Your task to perform on an android device: Add "bose quietcomfort 35" to the cart on target.com, then select checkout. Image 0: 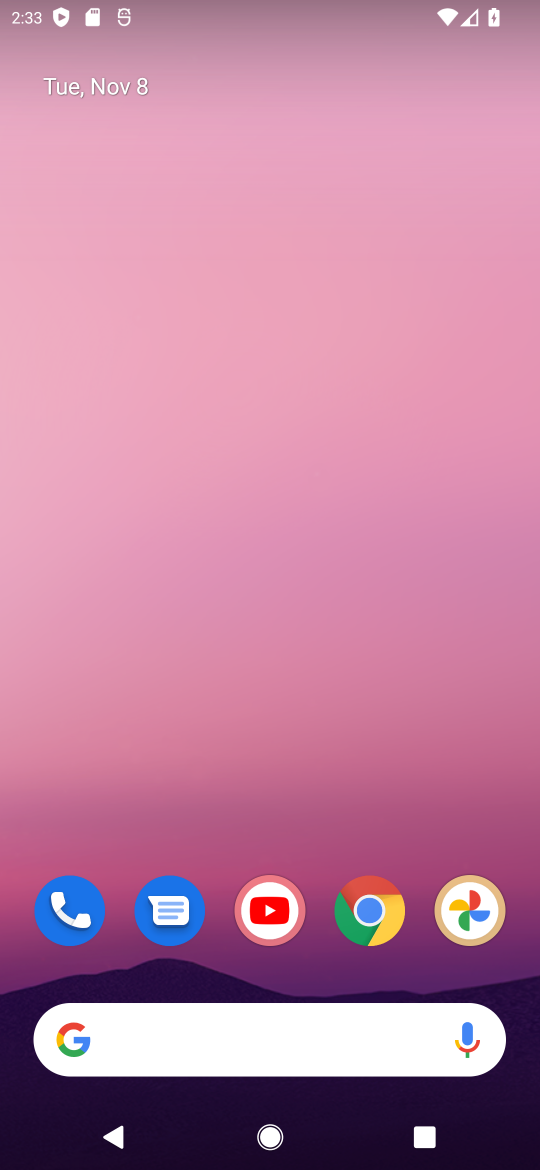
Step 0: drag from (330, 997) to (424, 103)
Your task to perform on an android device: Add "bose quietcomfort 35" to the cart on target.com, then select checkout. Image 1: 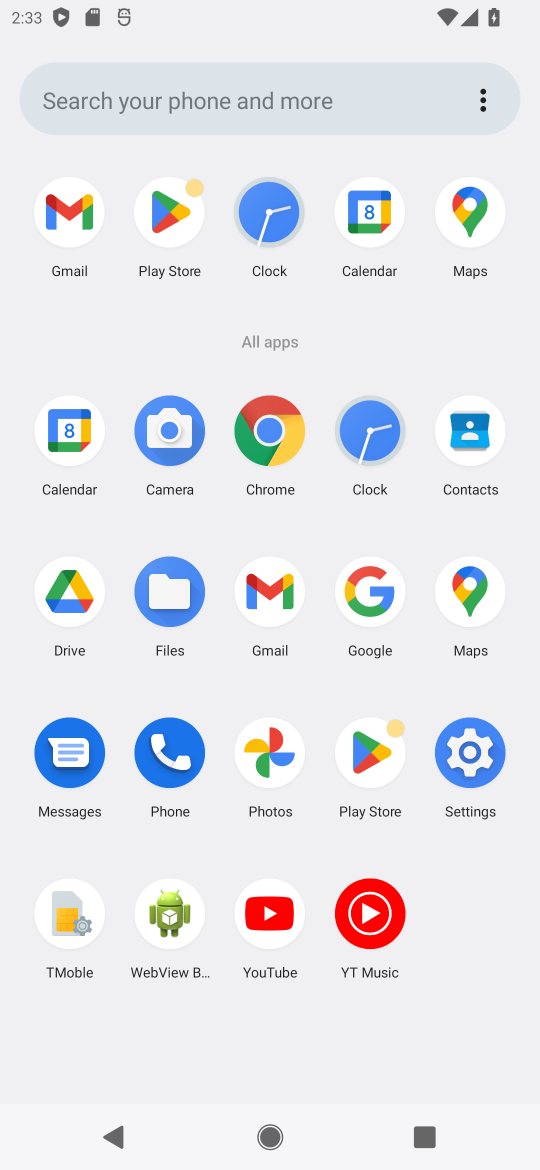
Step 1: click (266, 434)
Your task to perform on an android device: Add "bose quietcomfort 35" to the cart on target.com, then select checkout. Image 2: 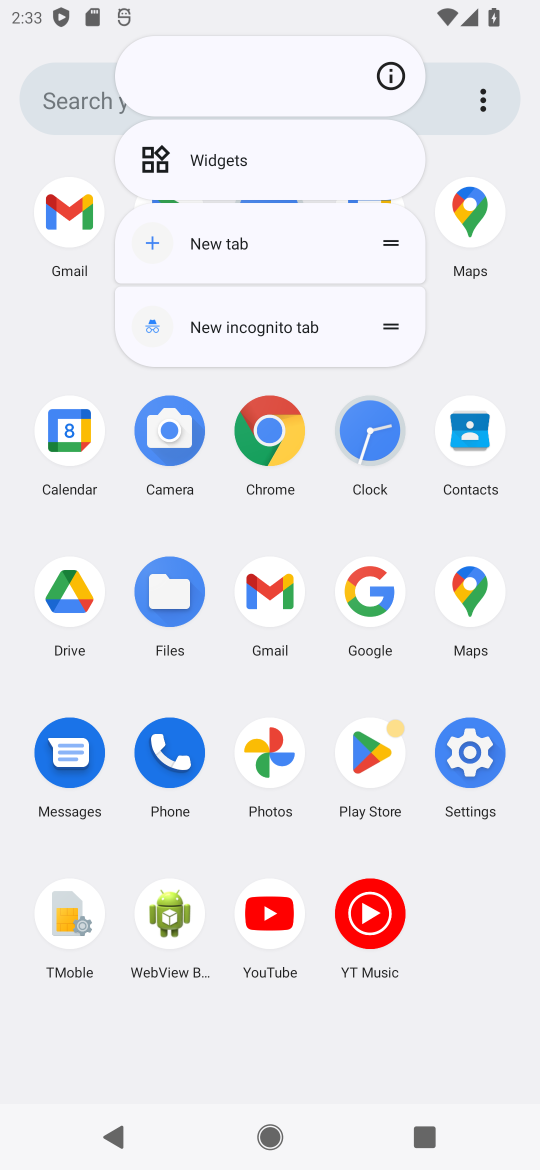
Step 2: click (266, 434)
Your task to perform on an android device: Add "bose quietcomfort 35" to the cart on target.com, then select checkout. Image 3: 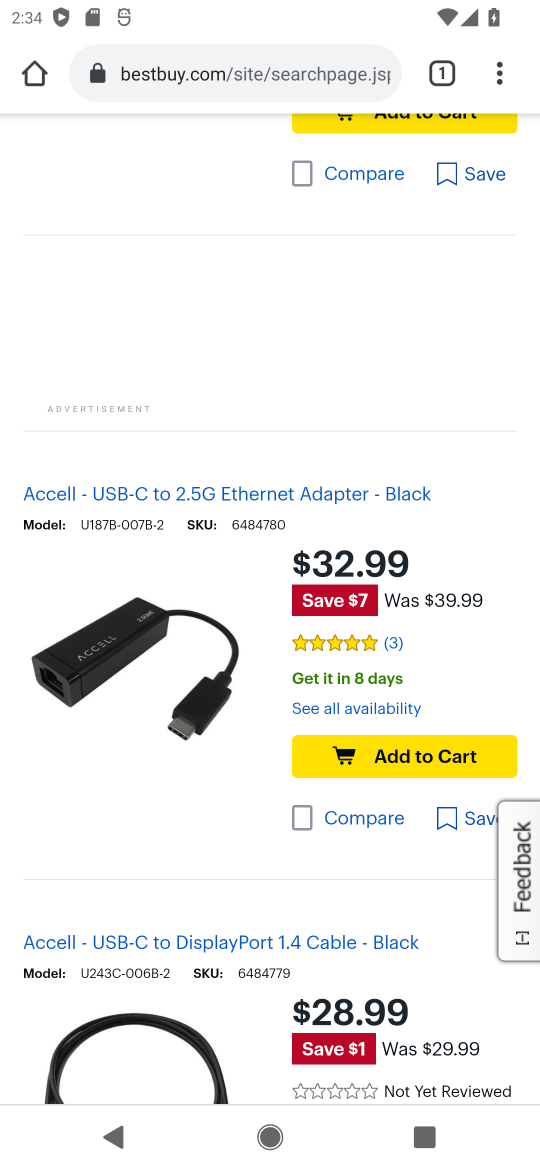
Step 3: click (214, 68)
Your task to perform on an android device: Add "bose quietcomfort 35" to the cart on target.com, then select checkout. Image 4: 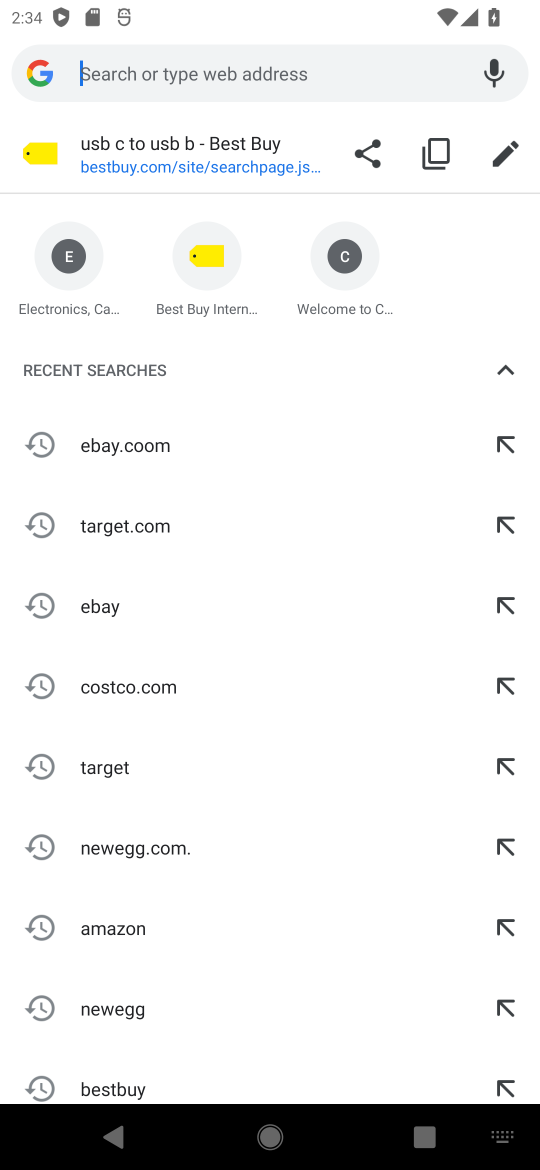
Step 4: type "target.com"
Your task to perform on an android device: Add "bose quietcomfort 35" to the cart on target.com, then select checkout. Image 5: 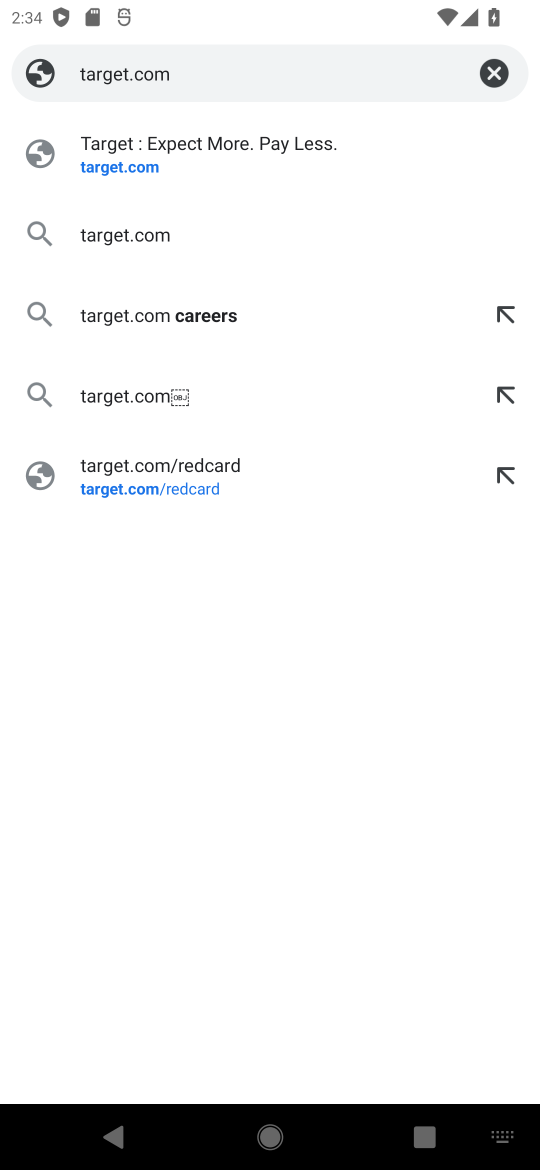
Step 5: press enter
Your task to perform on an android device: Add "bose quietcomfort 35" to the cart on target.com, then select checkout. Image 6: 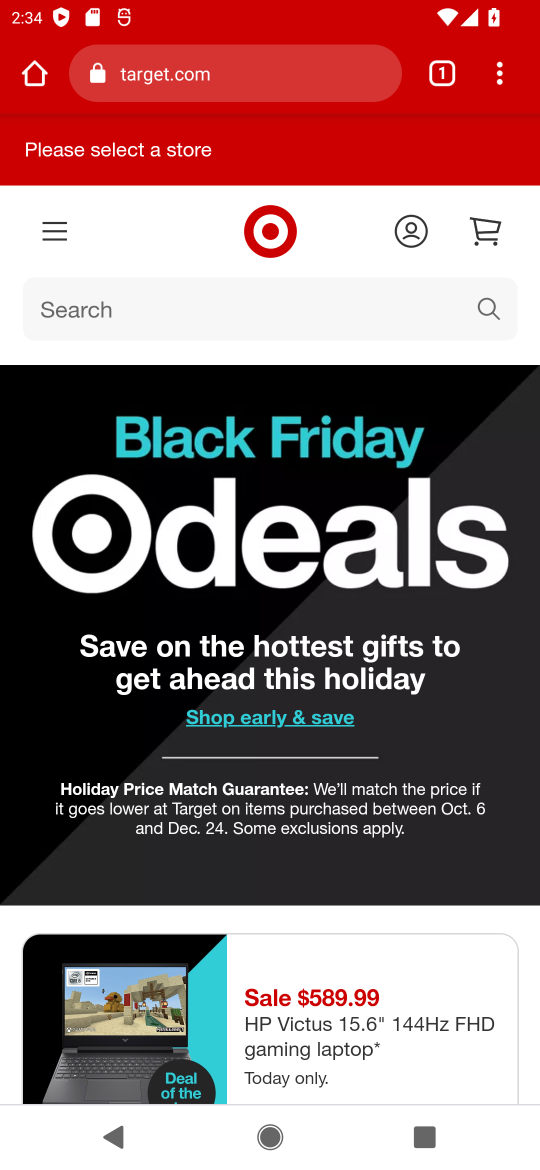
Step 6: drag from (293, 1058) to (234, 1162)
Your task to perform on an android device: Add "bose quietcomfort 35" to the cart on target.com, then select checkout. Image 7: 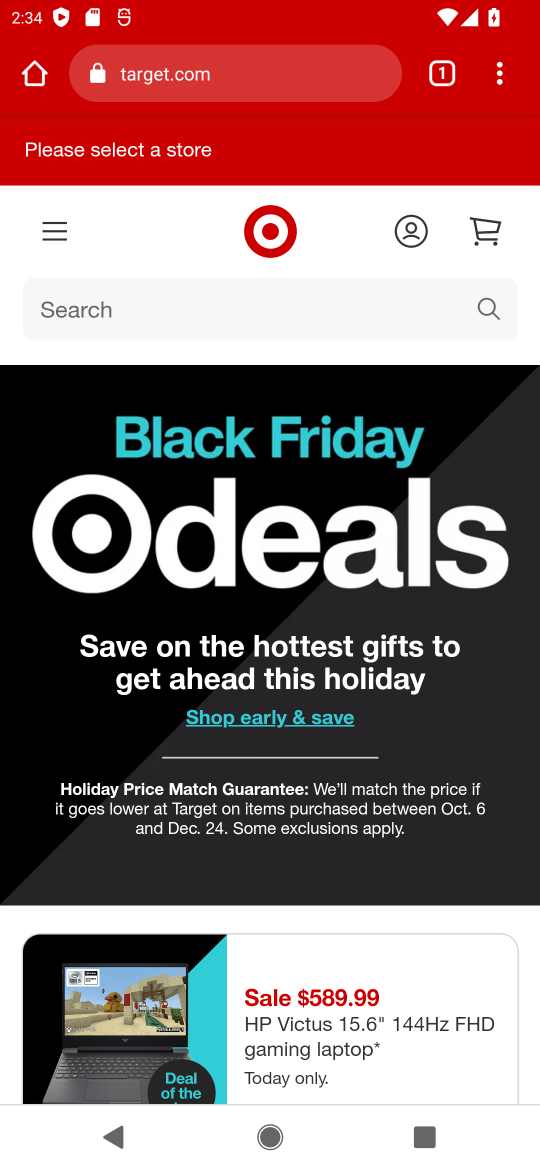
Step 7: click (225, 326)
Your task to perform on an android device: Add "bose quietcomfort 35" to the cart on target.com, then select checkout. Image 8: 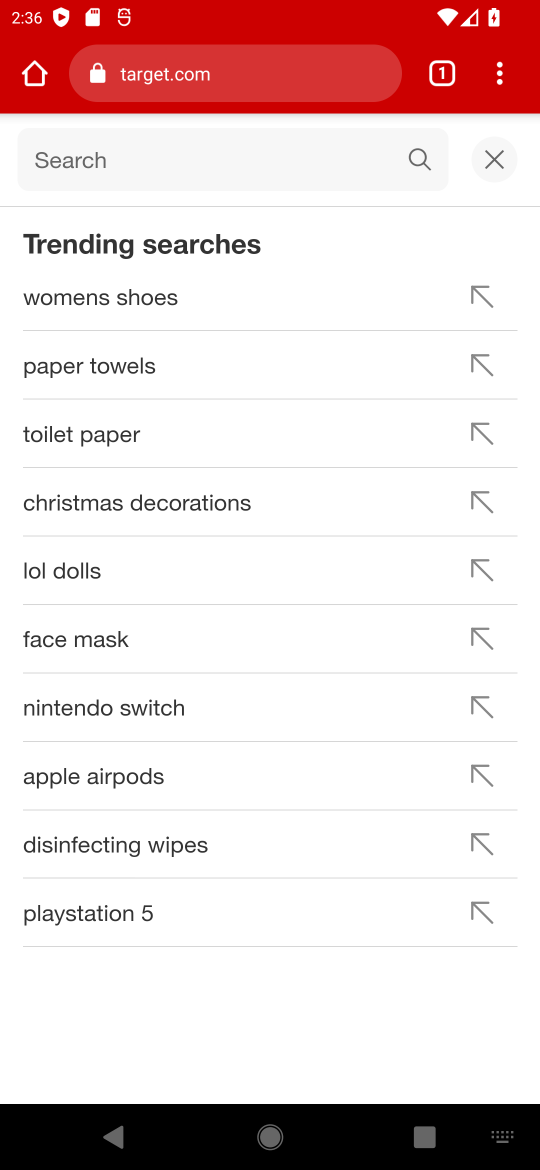
Step 8: type "bose quietcomfort 35"
Your task to perform on an android device: Add "bose quietcomfort 35" to the cart on target.com, then select checkout. Image 9: 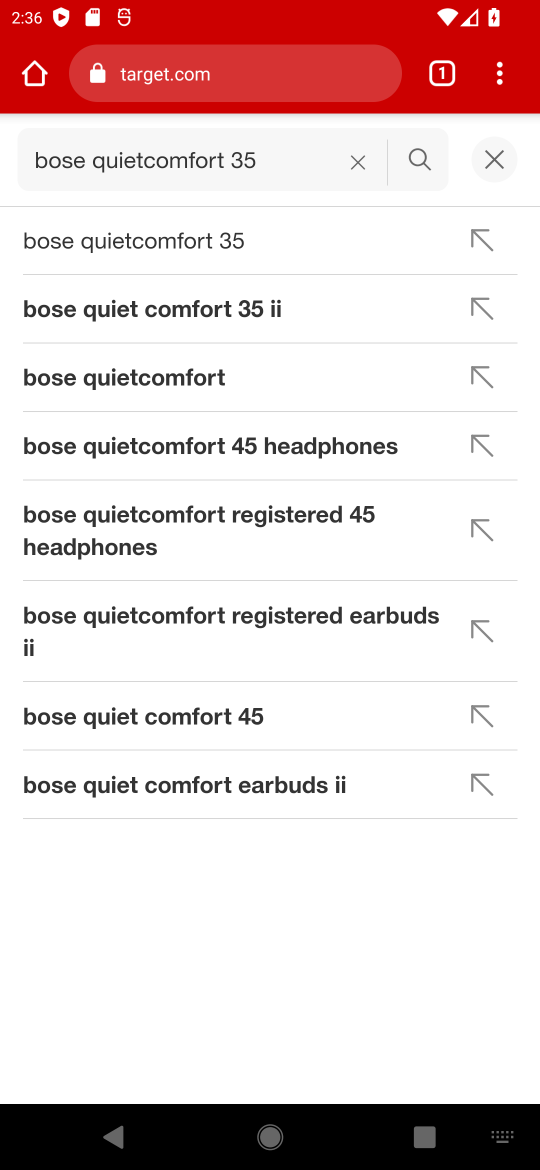
Step 9: press enter
Your task to perform on an android device: Add "bose quietcomfort 35" to the cart on target.com, then select checkout. Image 10: 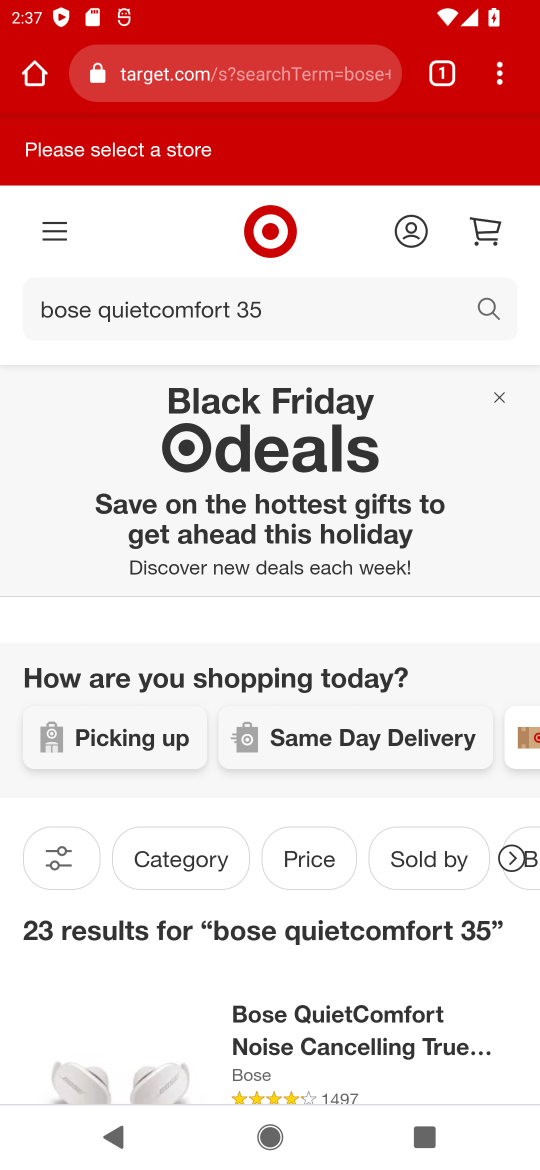
Step 10: drag from (207, 914) to (237, 375)
Your task to perform on an android device: Add "bose quietcomfort 35" to the cart on target.com, then select checkout. Image 11: 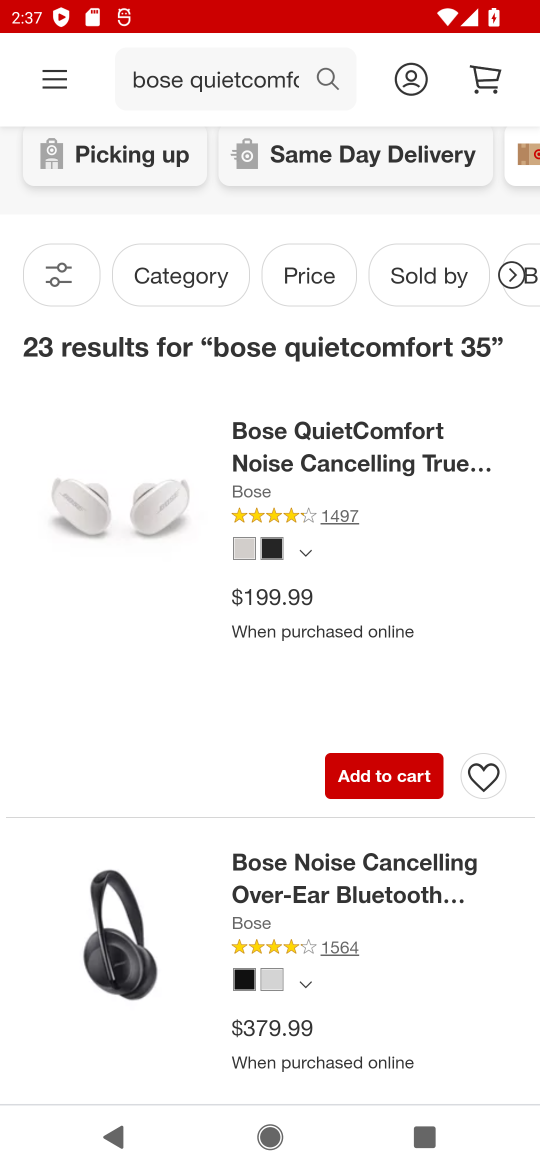
Step 11: drag from (299, 973) to (308, 444)
Your task to perform on an android device: Add "bose quietcomfort 35" to the cart on target.com, then select checkout. Image 12: 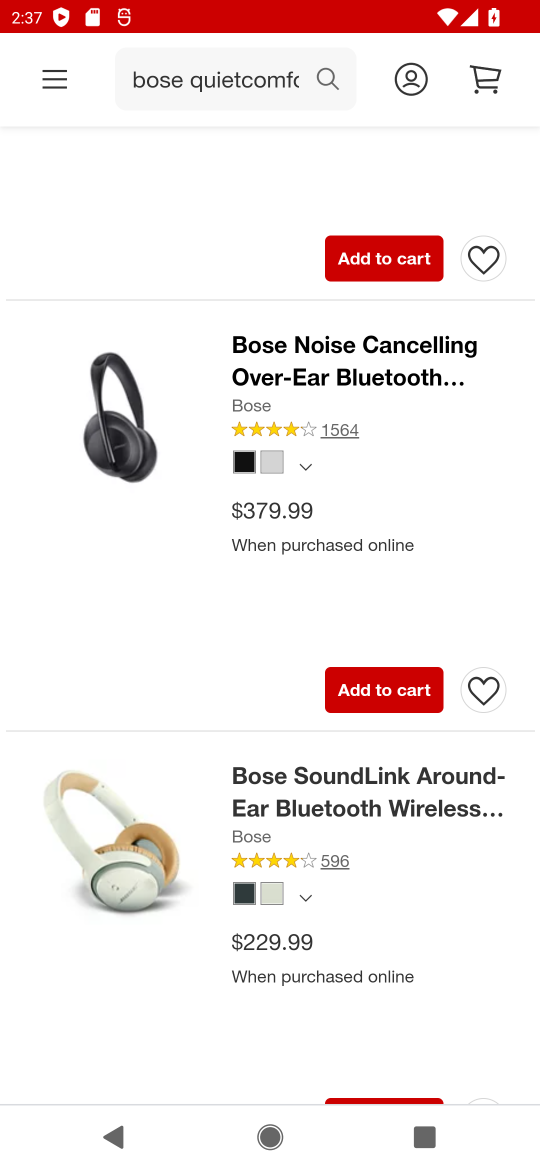
Step 12: drag from (349, 843) to (357, 335)
Your task to perform on an android device: Add "bose quietcomfort 35" to the cart on target.com, then select checkout. Image 13: 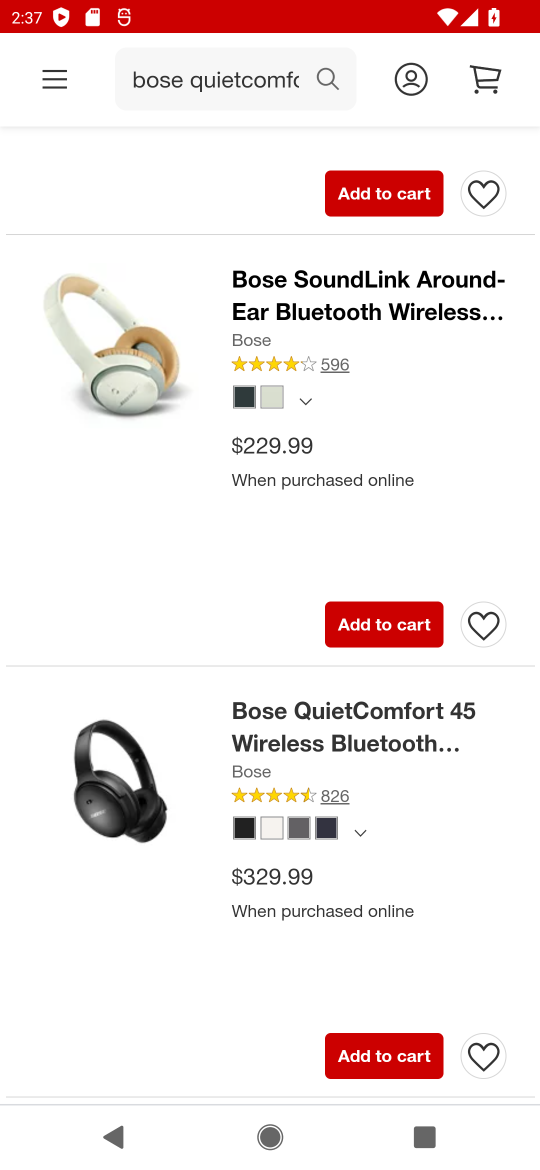
Step 13: drag from (293, 926) to (287, 1162)
Your task to perform on an android device: Add "bose quietcomfort 35" to the cart on target.com, then select checkout. Image 14: 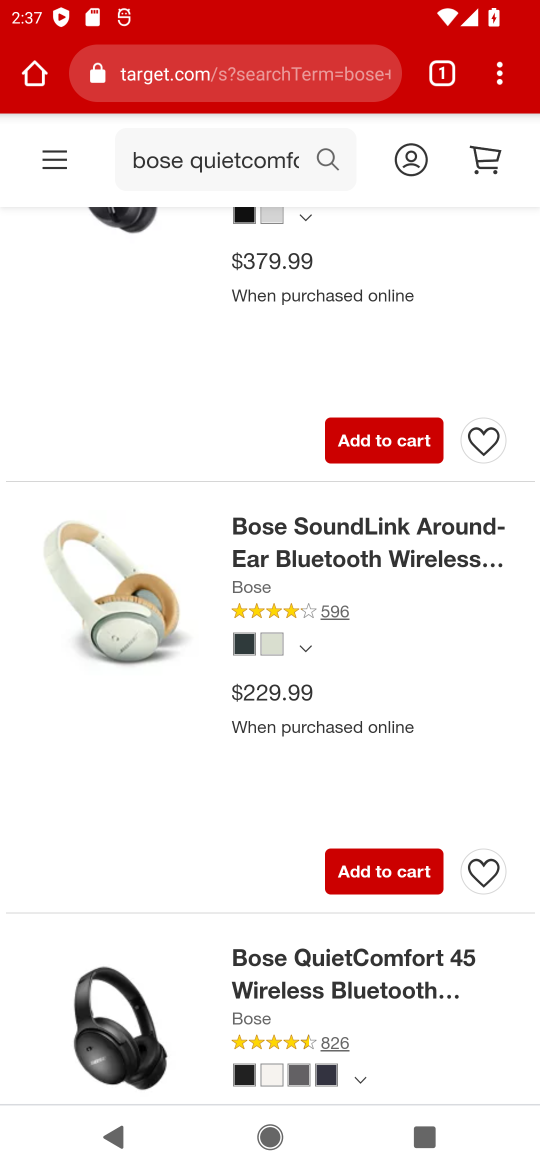
Step 14: drag from (206, 324) to (193, 844)
Your task to perform on an android device: Add "bose quietcomfort 35" to the cart on target.com, then select checkout. Image 15: 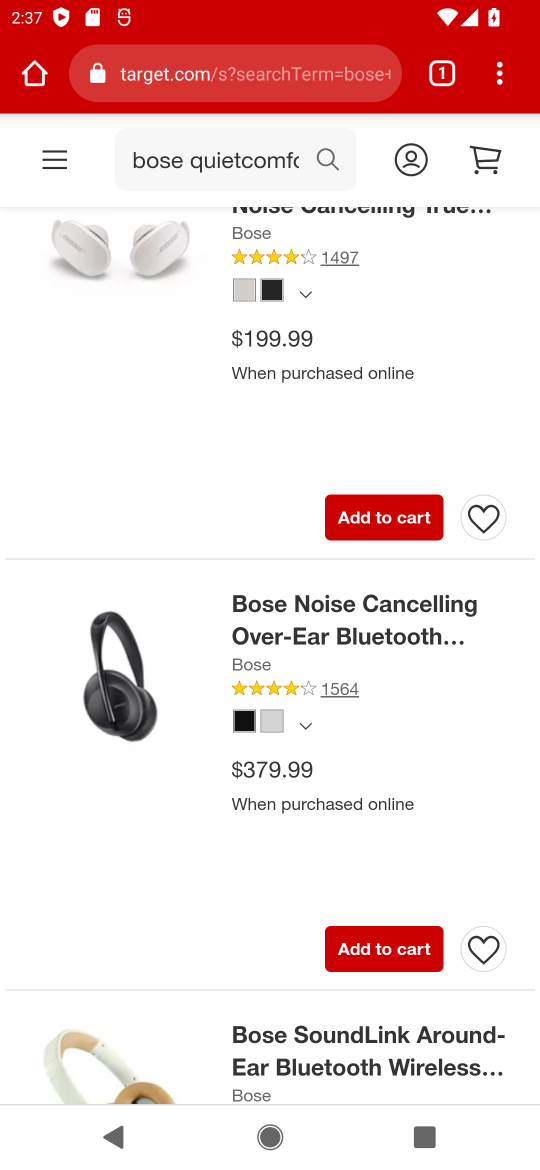
Step 15: drag from (177, 345) to (170, 844)
Your task to perform on an android device: Add "bose quietcomfort 35" to the cart on target.com, then select checkout. Image 16: 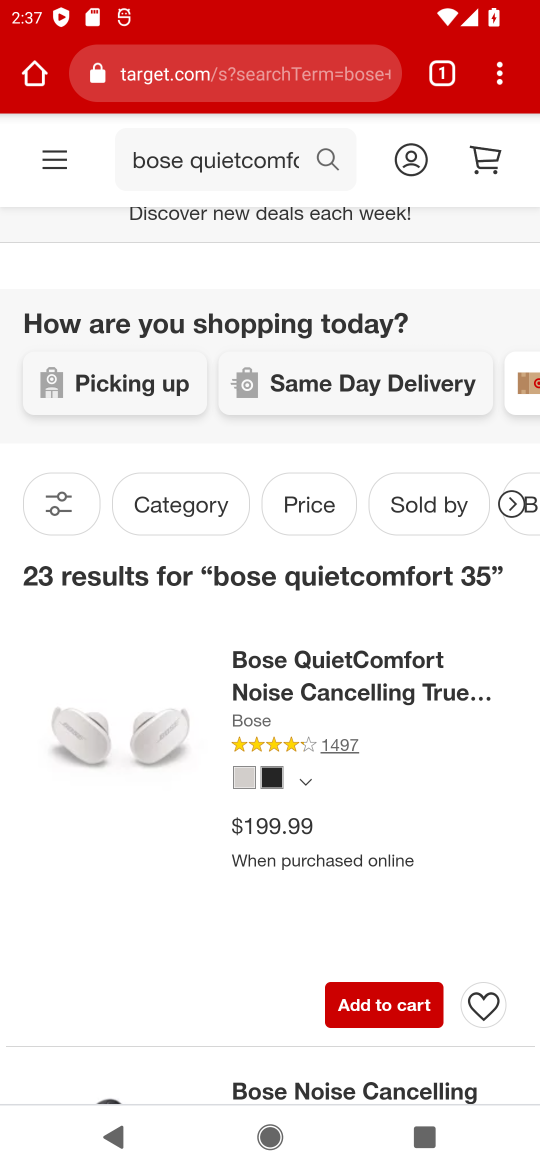
Step 16: click (352, 686)
Your task to perform on an android device: Add "bose quietcomfort 35" to the cart on target.com, then select checkout. Image 17: 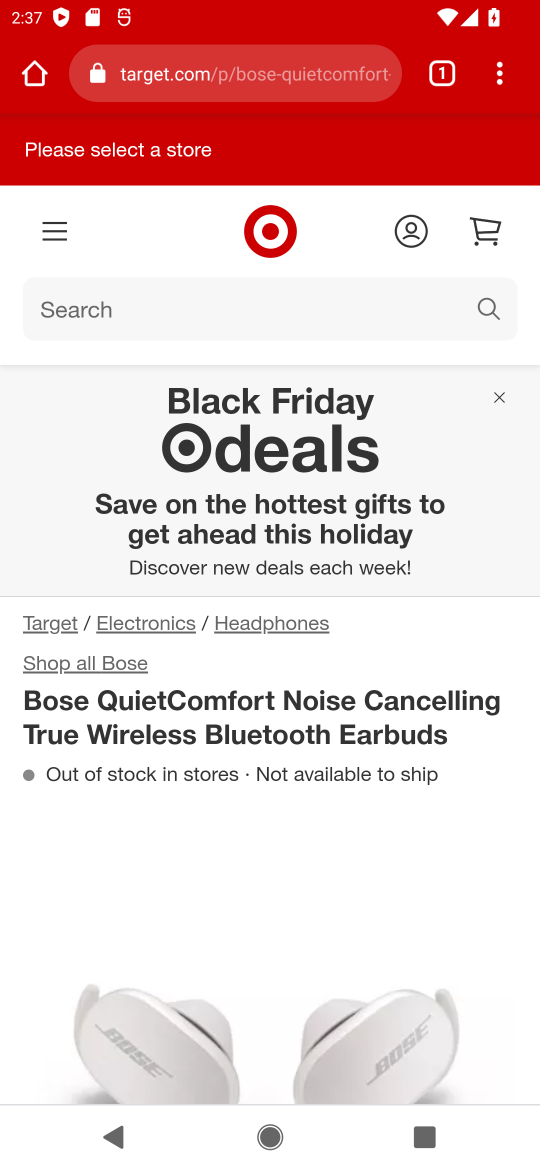
Step 17: task complete